Your task to perform on an android device: read, delete, or share a saved page in the chrome app Image 0: 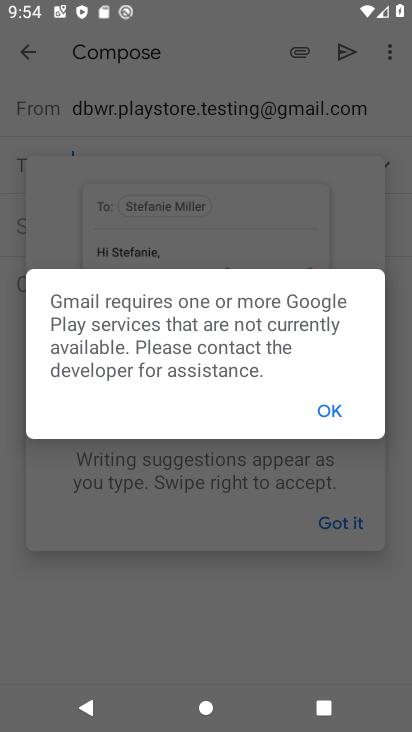
Step 0: press home button
Your task to perform on an android device: read, delete, or share a saved page in the chrome app Image 1: 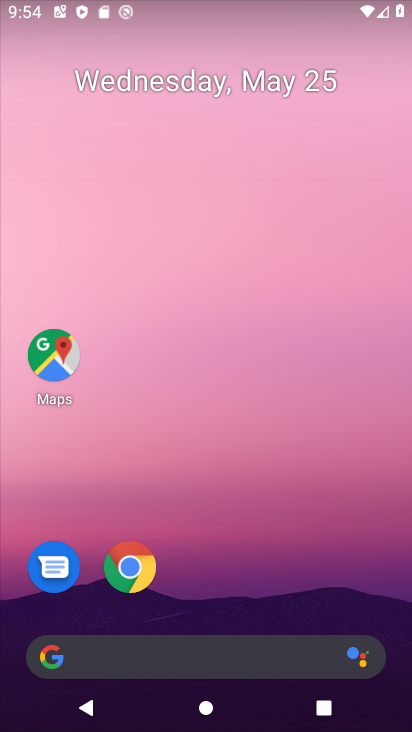
Step 1: click (139, 579)
Your task to perform on an android device: read, delete, or share a saved page in the chrome app Image 2: 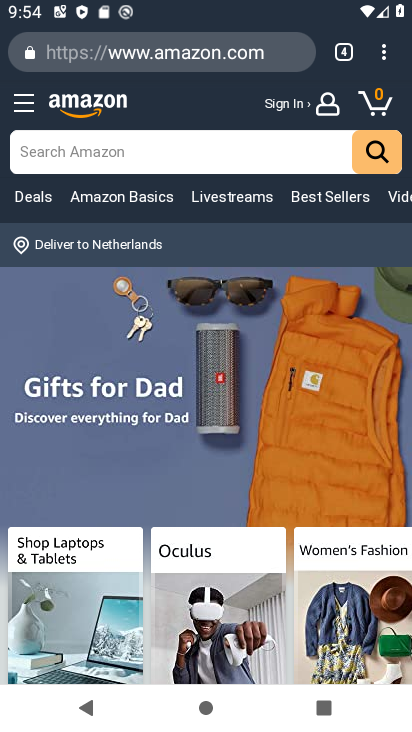
Step 2: click (382, 65)
Your task to perform on an android device: read, delete, or share a saved page in the chrome app Image 3: 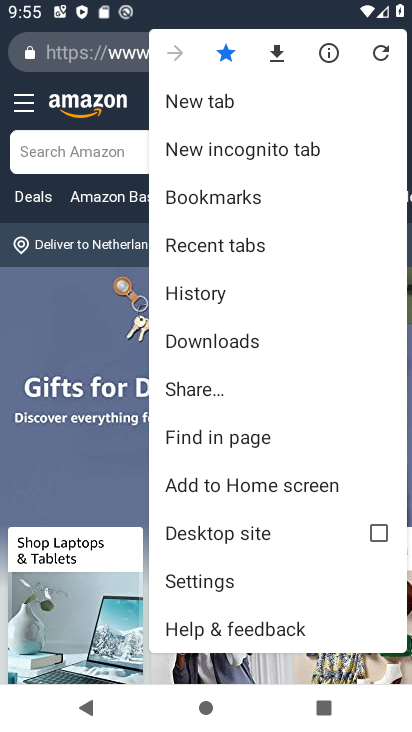
Step 3: click (213, 257)
Your task to perform on an android device: read, delete, or share a saved page in the chrome app Image 4: 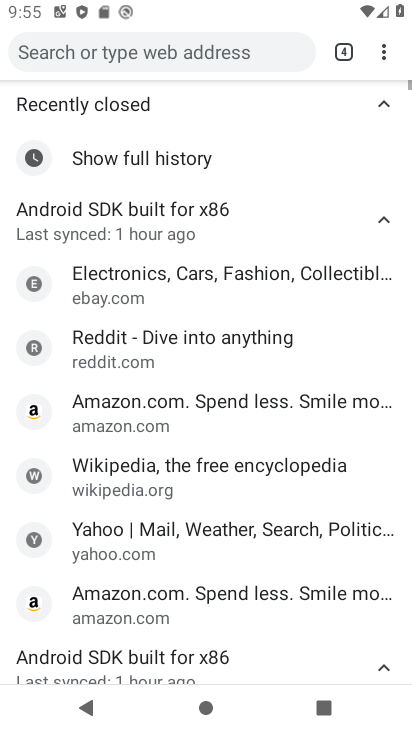
Step 4: task complete